Your task to perform on an android device: turn off priority inbox in the gmail app Image 0: 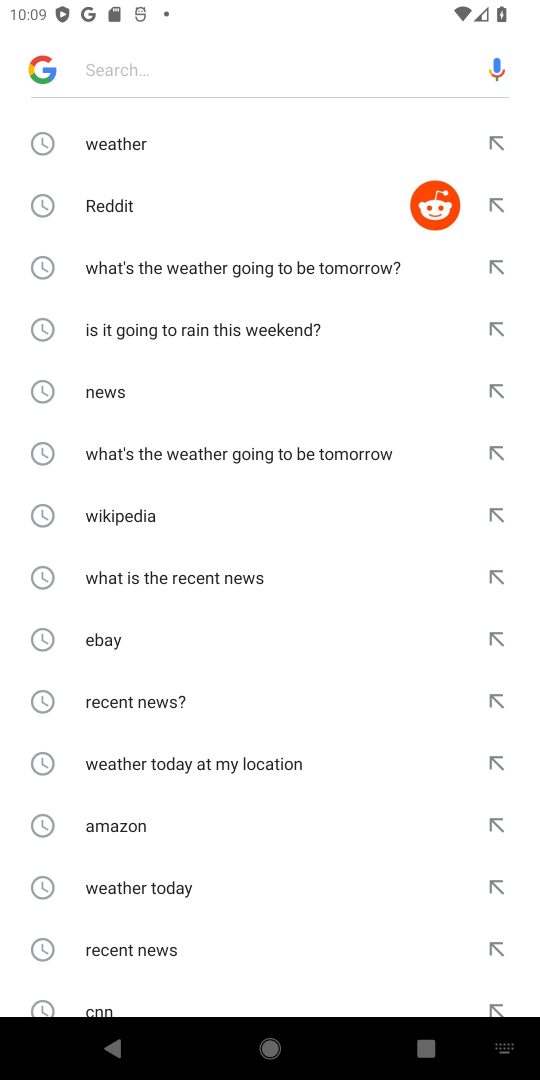
Step 0: press home button
Your task to perform on an android device: turn off priority inbox in the gmail app Image 1: 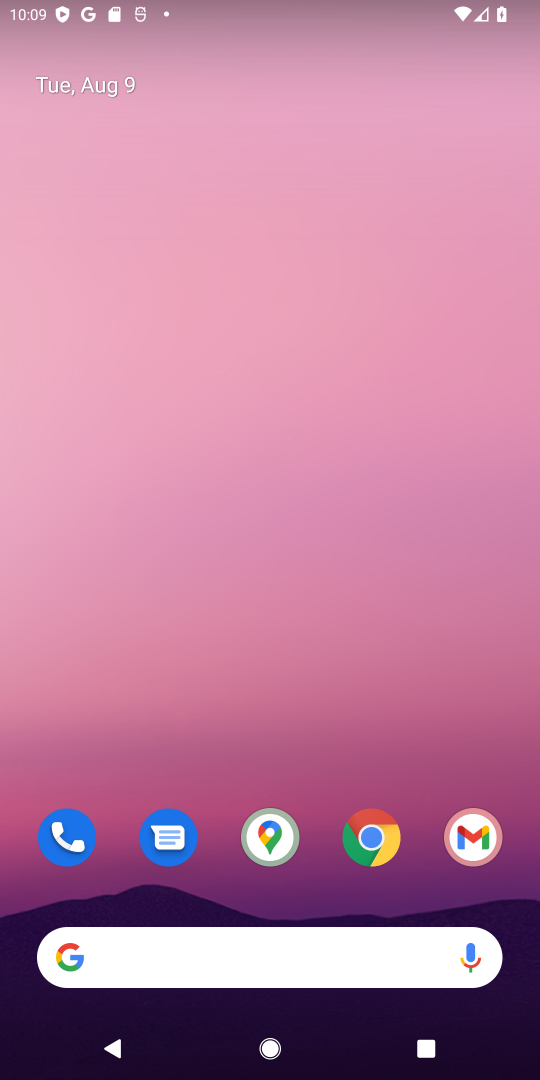
Step 1: drag from (310, 653) to (334, 186)
Your task to perform on an android device: turn off priority inbox in the gmail app Image 2: 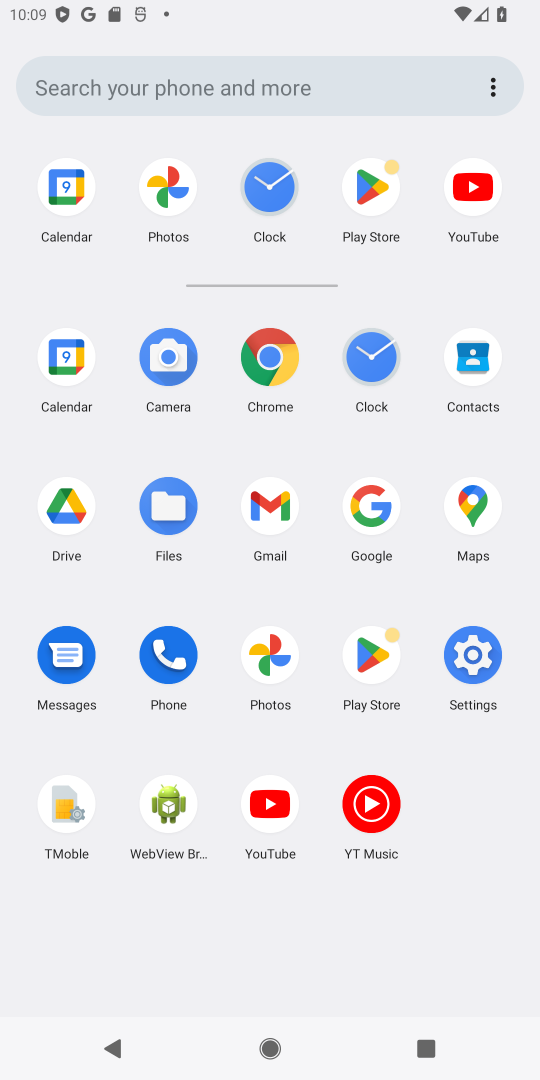
Step 2: click (273, 491)
Your task to perform on an android device: turn off priority inbox in the gmail app Image 3: 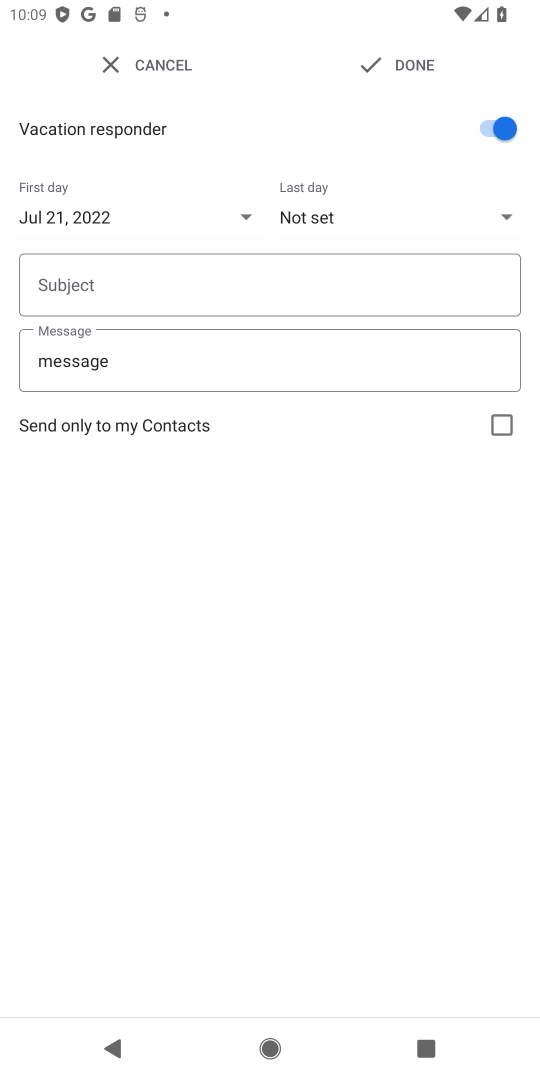
Step 3: click (110, 59)
Your task to perform on an android device: turn off priority inbox in the gmail app Image 4: 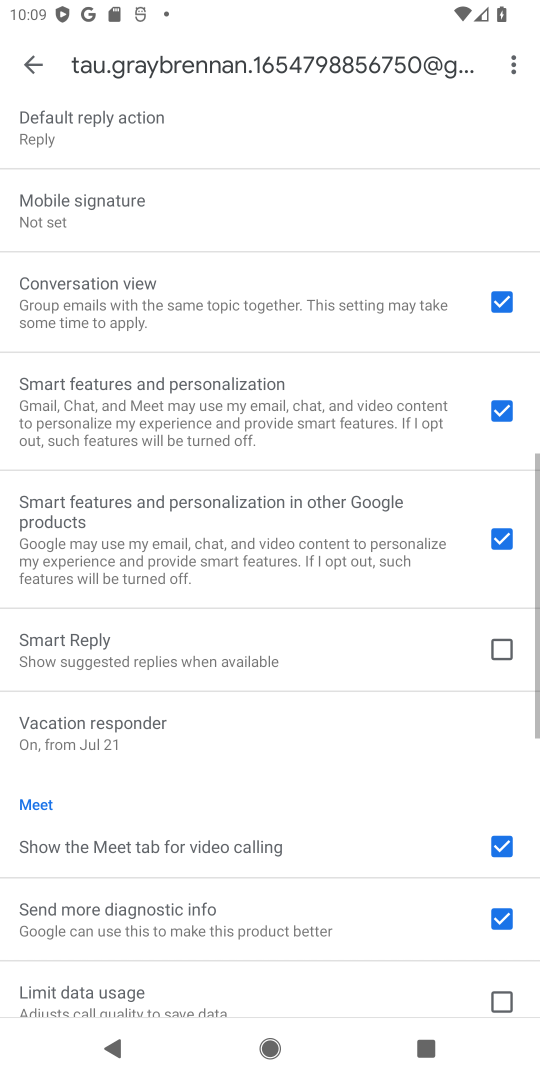
Step 4: drag from (147, 210) to (141, 773)
Your task to perform on an android device: turn off priority inbox in the gmail app Image 5: 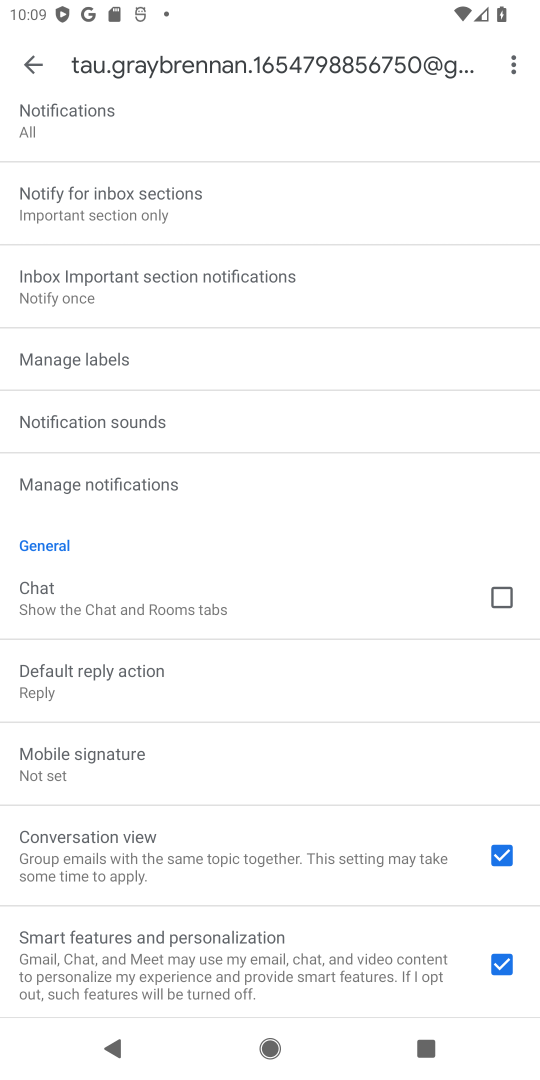
Step 5: drag from (166, 185) to (145, 896)
Your task to perform on an android device: turn off priority inbox in the gmail app Image 6: 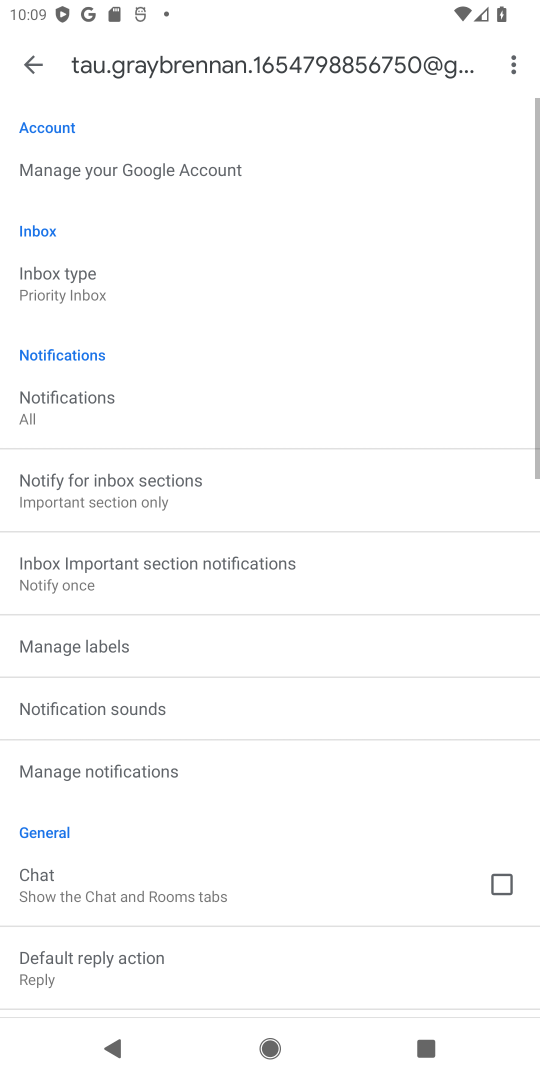
Step 6: drag from (140, 284) to (129, 708)
Your task to perform on an android device: turn off priority inbox in the gmail app Image 7: 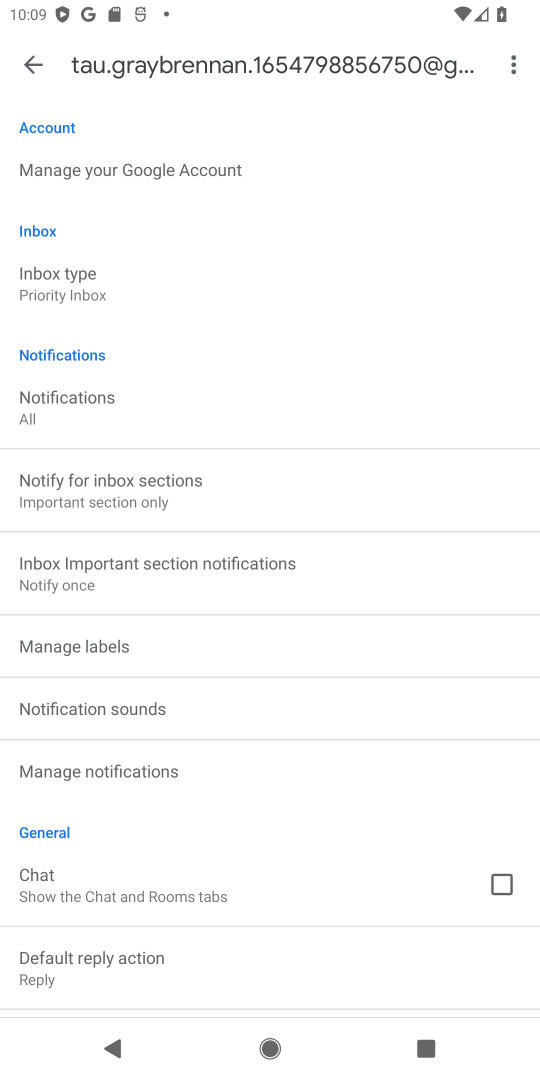
Step 7: click (93, 287)
Your task to perform on an android device: turn off priority inbox in the gmail app Image 8: 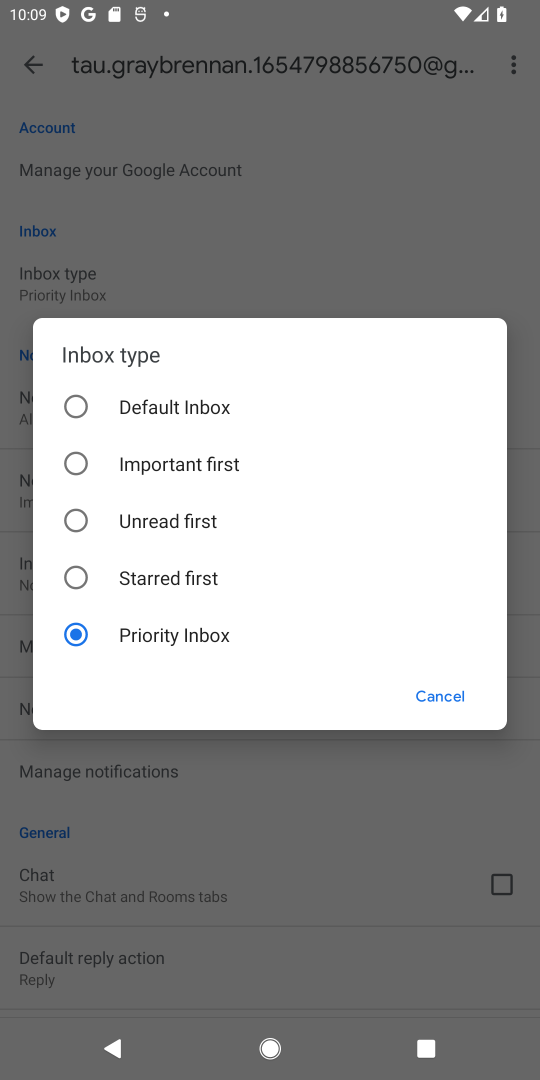
Step 8: click (81, 406)
Your task to perform on an android device: turn off priority inbox in the gmail app Image 9: 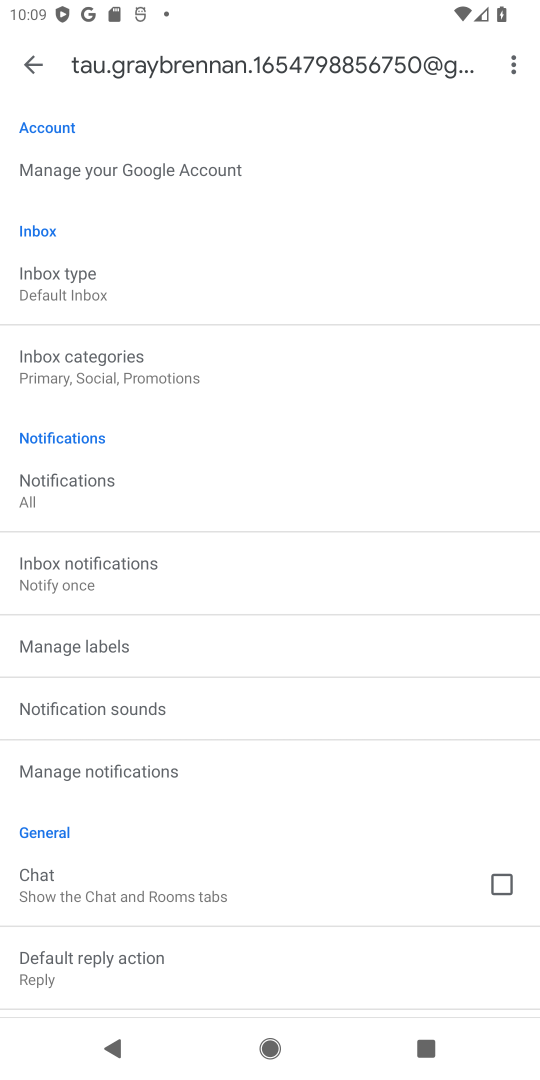
Step 9: task complete